Your task to perform on an android device: Search for vegetarian restaurants on Maps Image 0: 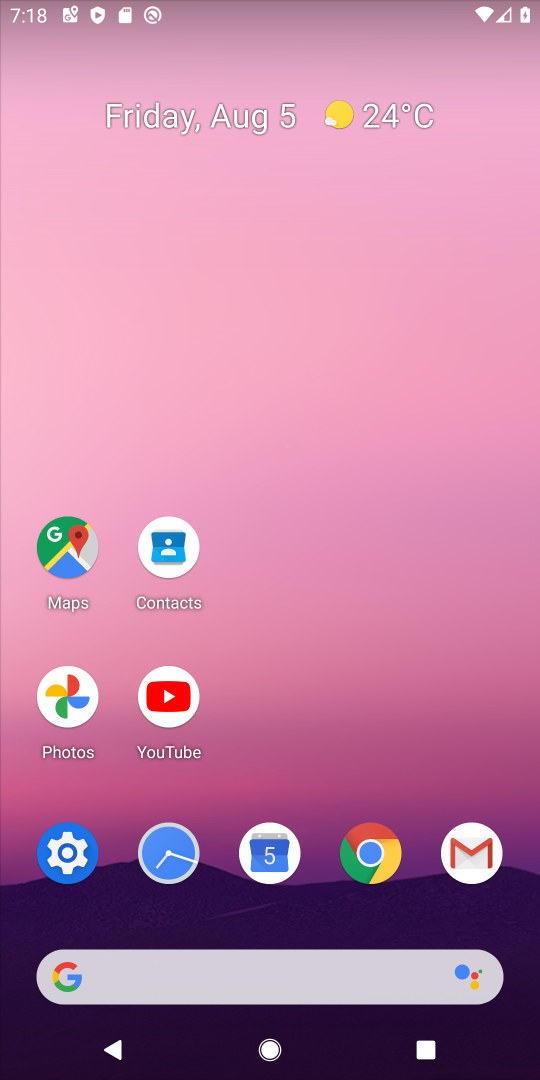
Step 0: click (72, 555)
Your task to perform on an android device: Search for vegetarian restaurants on Maps Image 1: 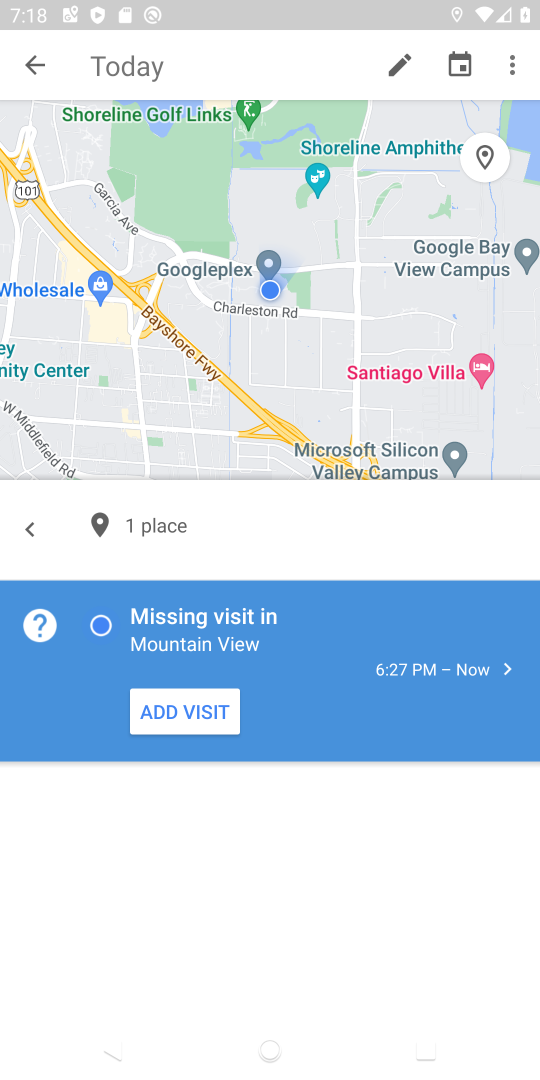
Step 1: click (31, 69)
Your task to perform on an android device: Search for vegetarian restaurants on Maps Image 2: 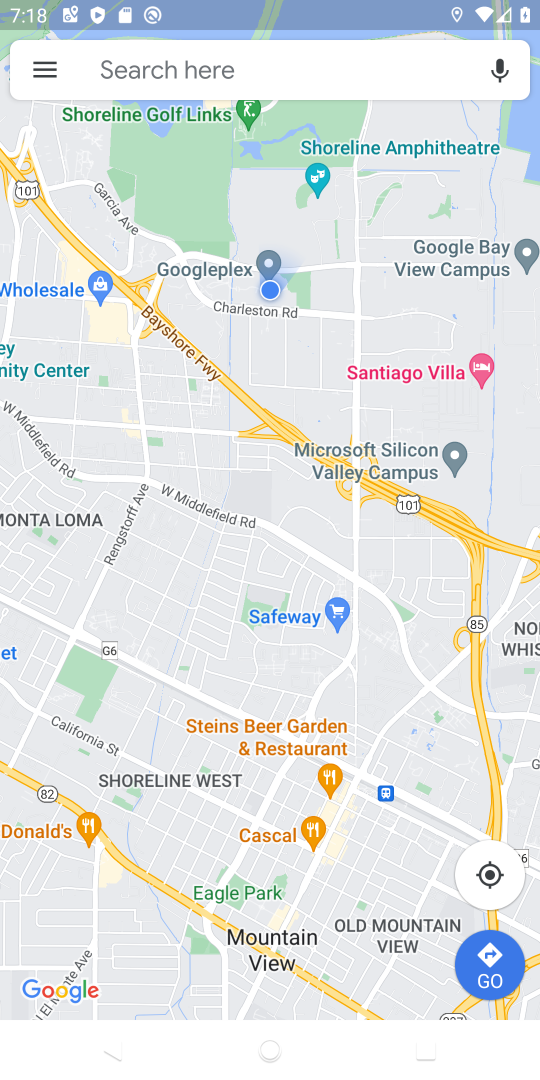
Step 2: click (171, 63)
Your task to perform on an android device: Search for vegetarian restaurants on Maps Image 3: 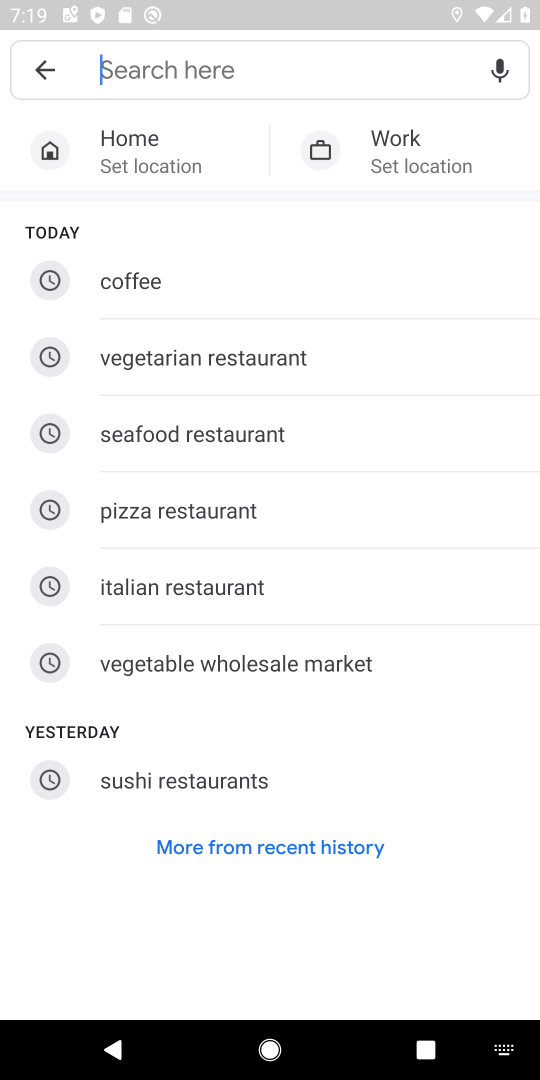
Step 3: click (220, 349)
Your task to perform on an android device: Search for vegetarian restaurants on Maps Image 4: 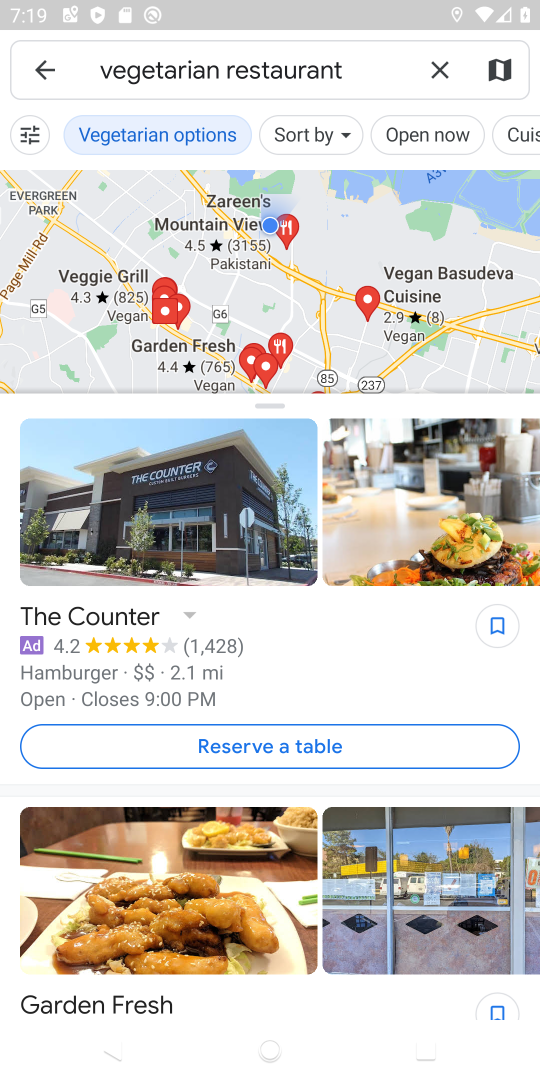
Step 4: task complete